Your task to perform on an android device: Open calendar and show me the second week of next month Image 0: 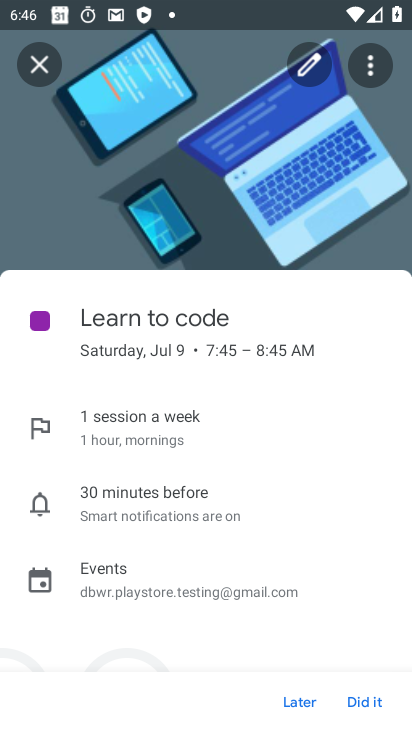
Step 0: press home button
Your task to perform on an android device: Open calendar and show me the second week of next month Image 1: 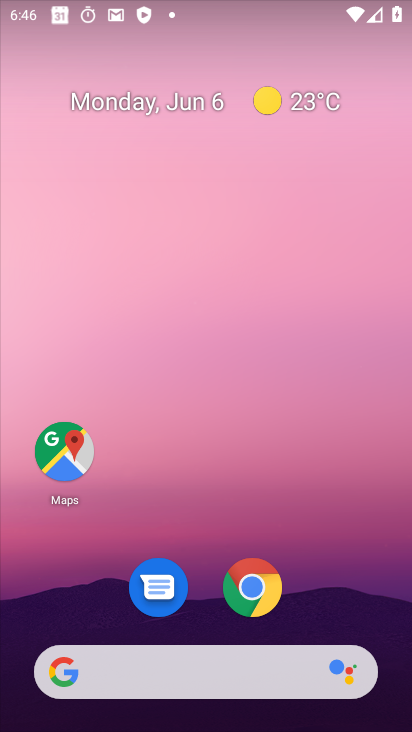
Step 1: drag from (389, 656) to (270, 54)
Your task to perform on an android device: Open calendar and show me the second week of next month Image 2: 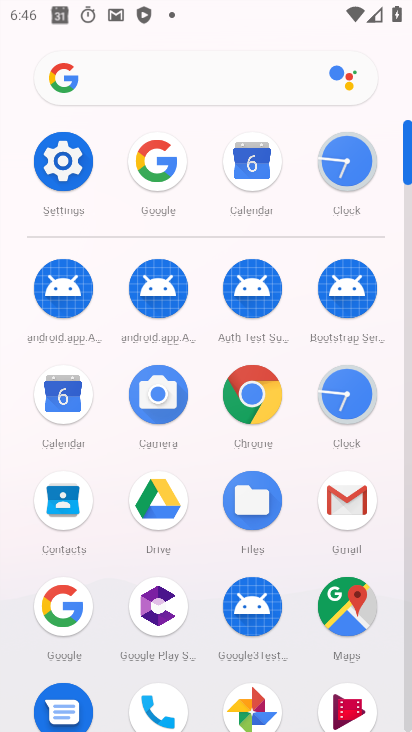
Step 2: click (64, 400)
Your task to perform on an android device: Open calendar and show me the second week of next month Image 3: 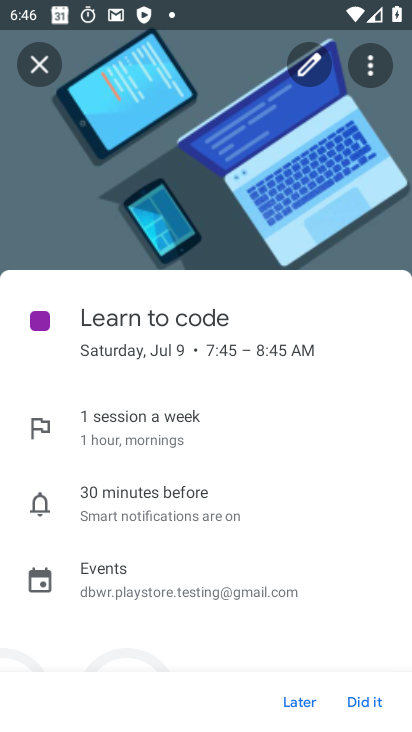
Step 3: press back button
Your task to perform on an android device: Open calendar and show me the second week of next month Image 4: 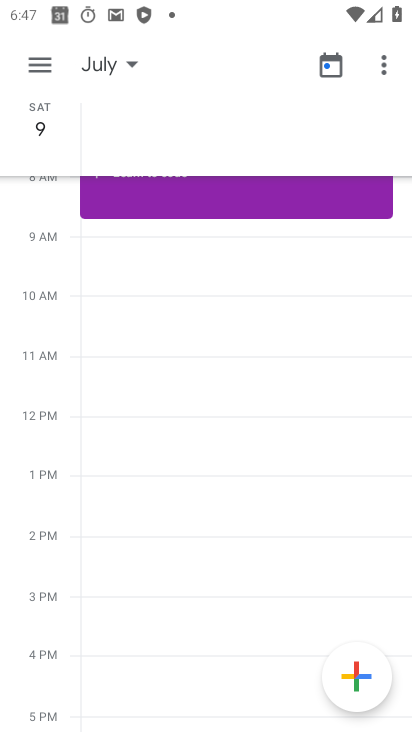
Step 4: click (87, 60)
Your task to perform on an android device: Open calendar and show me the second week of next month Image 5: 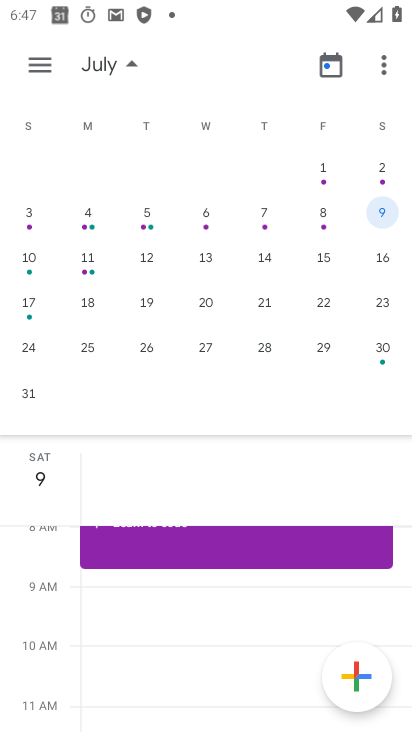
Step 5: drag from (374, 258) to (65, 271)
Your task to perform on an android device: Open calendar and show me the second week of next month Image 6: 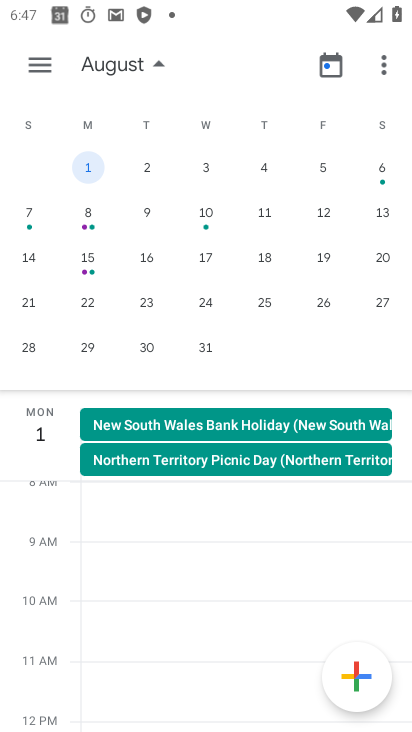
Step 6: click (91, 251)
Your task to perform on an android device: Open calendar and show me the second week of next month Image 7: 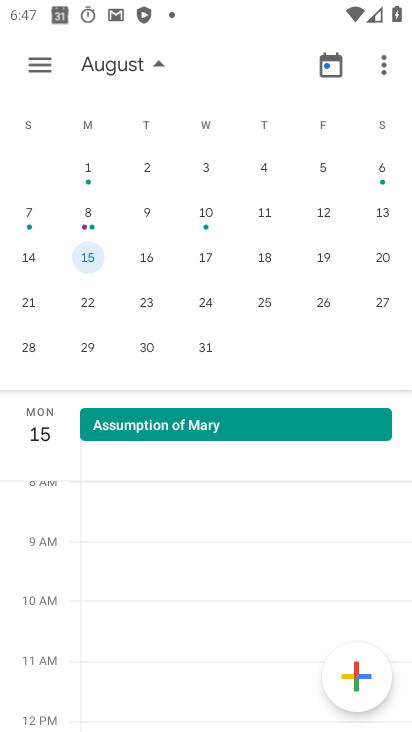
Step 7: task complete